Your task to perform on an android device: Do I have any events today? Image 0: 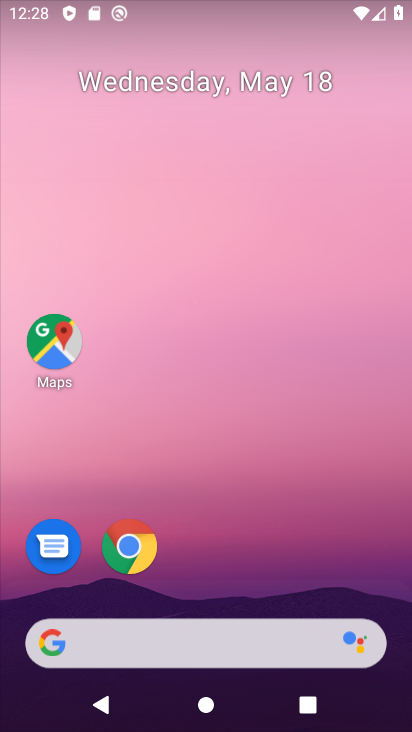
Step 0: drag from (305, 585) to (299, 165)
Your task to perform on an android device: Do I have any events today? Image 1: 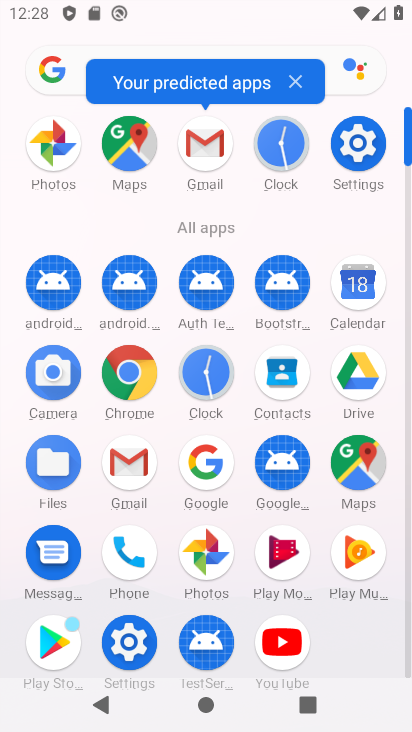
Step 1: click (361, 299)
Your task to perform on an android device: Do I have any events today? Image 2: 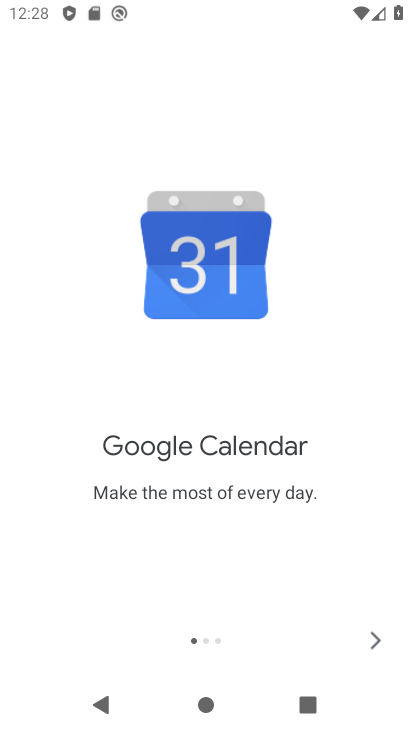
Step 2: click (379, 632)
Your task to perform on an android device: Do I have any events today? Image 3: 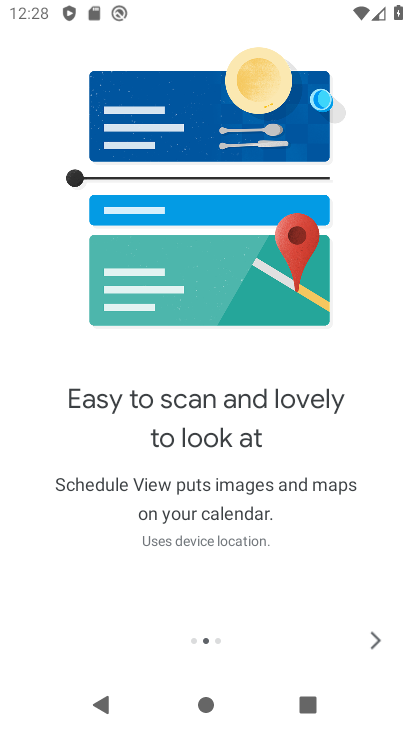
Step 3: click (378, 632)
Your task to perform on an android device: Do I have any events today? Image 4: 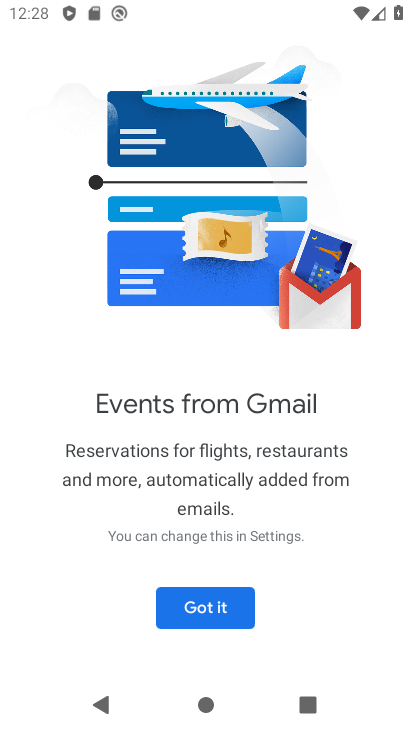
Step 4: click (378, 632)
Your task to perform on an android device: Do I have any events today? Image 5: 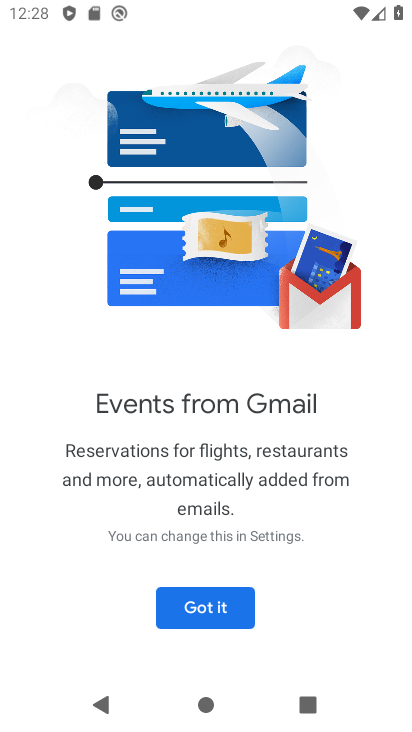
Step 5: click (202, 612)
Your task to perform on an android device: Do I have any events today? Image 6: 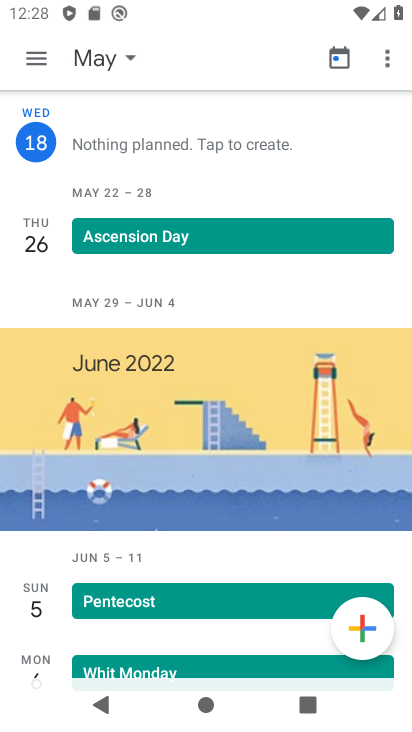
Step 6: click (103, 66)
Your task to perform on an android device: Do I have any events today? Image 7: 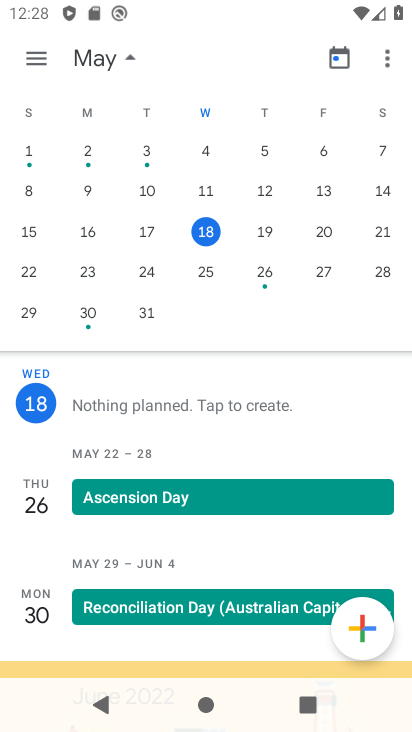
Step 7: task complete